Your task to perform on an android device: set the stopwatch Image 0: 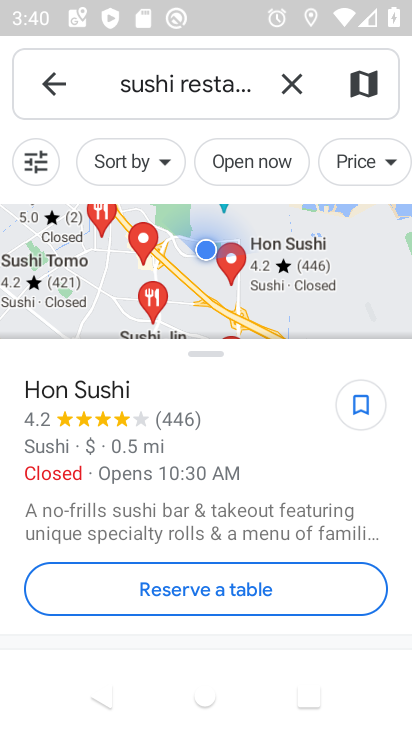
Step 0: press home button
Your task to perform on an android device: set the stopwatch Image 1: 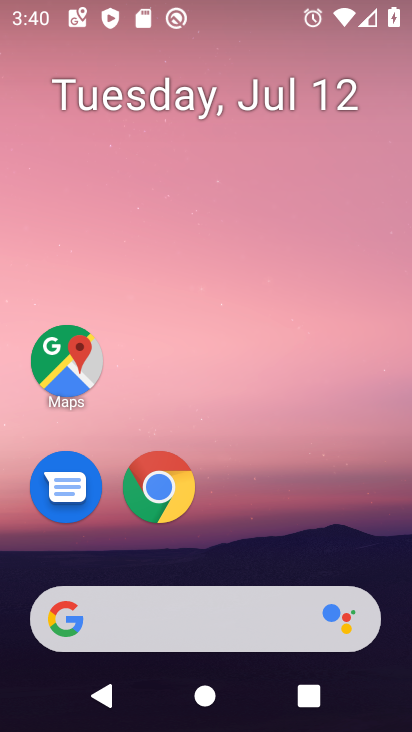
Step 1: drag from (118, 574) to (147, 321)
Your task to perform on an android device: set the stopwatch Image 2: 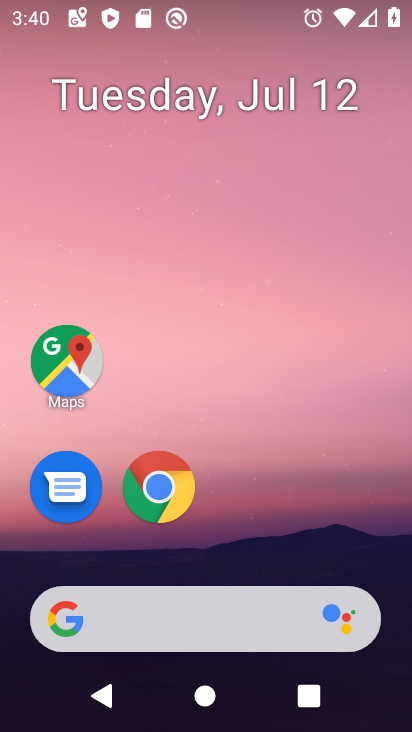
Step 2: drag from (186, 565) to (198, 220)
Your task to perform on an android device: set the stopwatch Image 3: 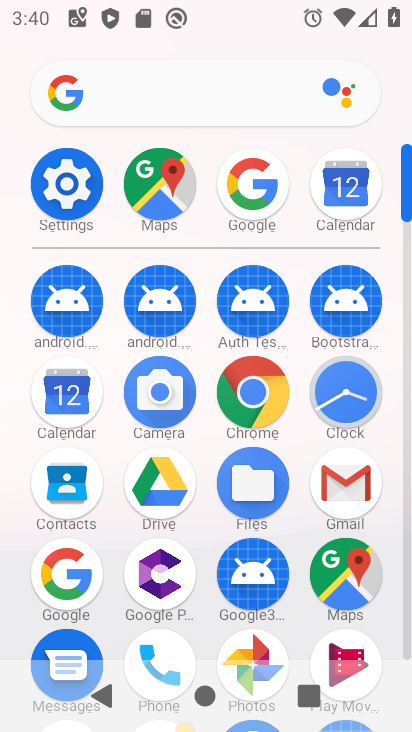
Step 3: click (335, 399)
Your task to perform on an android device: set the stopwatch Image 4: 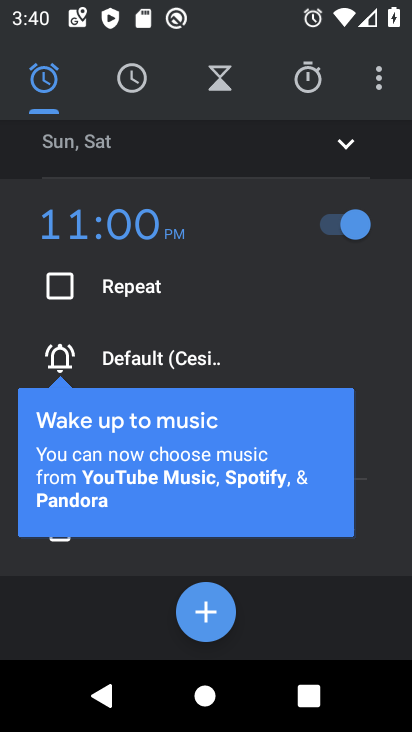
Step 4: click (299, 84)
Your task to perform on an android device: set the stopwatch Image 5: 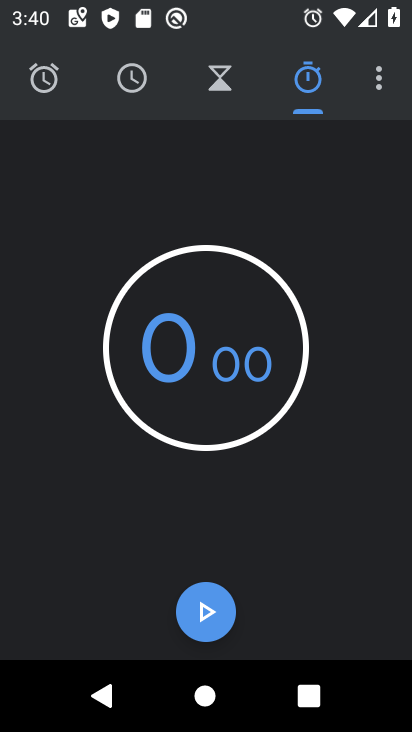
Step 5: click (206, 619)
Your task to perform on an android device: set the stopwatch Image 6: 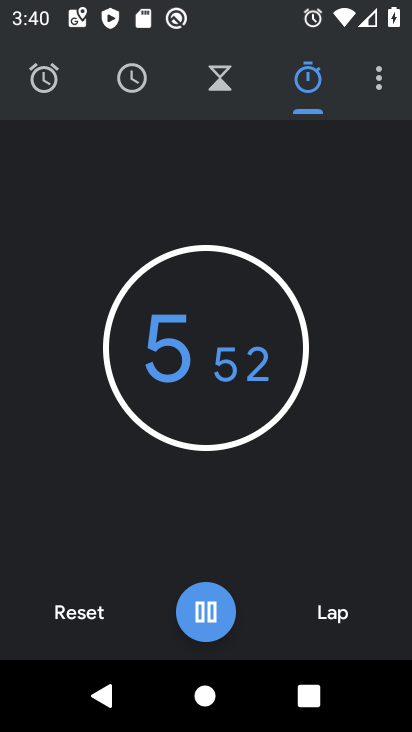
Step 6: click (203, 619)
Your task to perform on an android device: set the stopwatch Image 7: 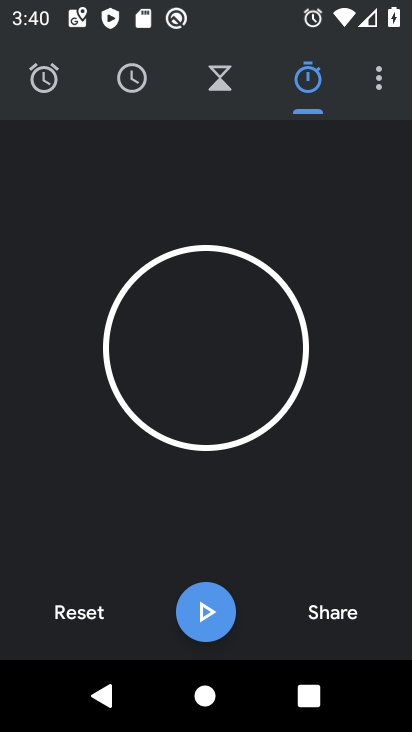
Step 7: task complete